Your task to perform on an android device: View the shopping cart on ebay.com. Image 0: 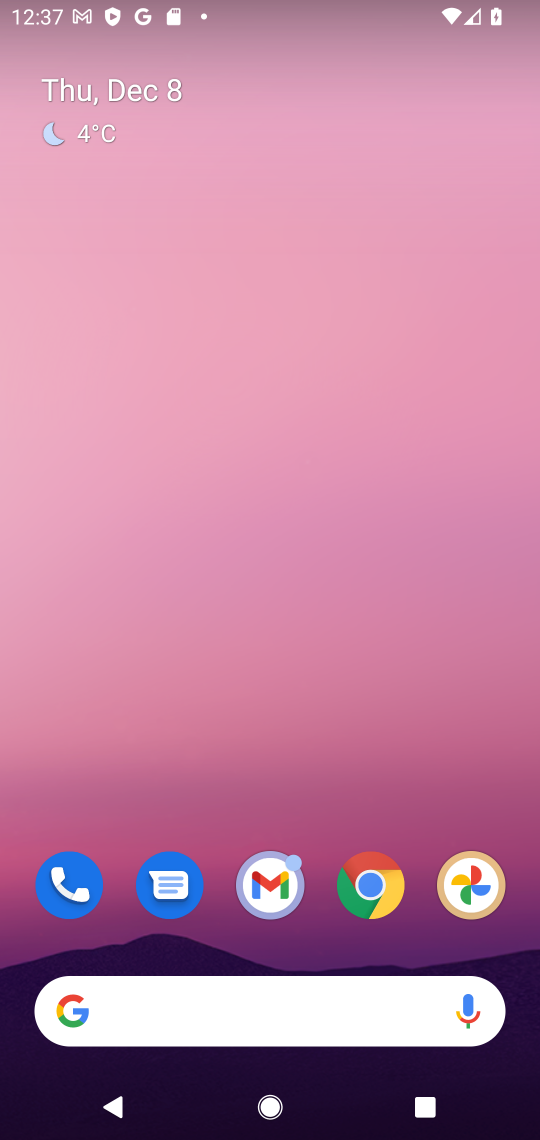
Step 0: click (376, 885)
Your task to perform on an android device: View the shopping cart on ebay.com. Image 1: 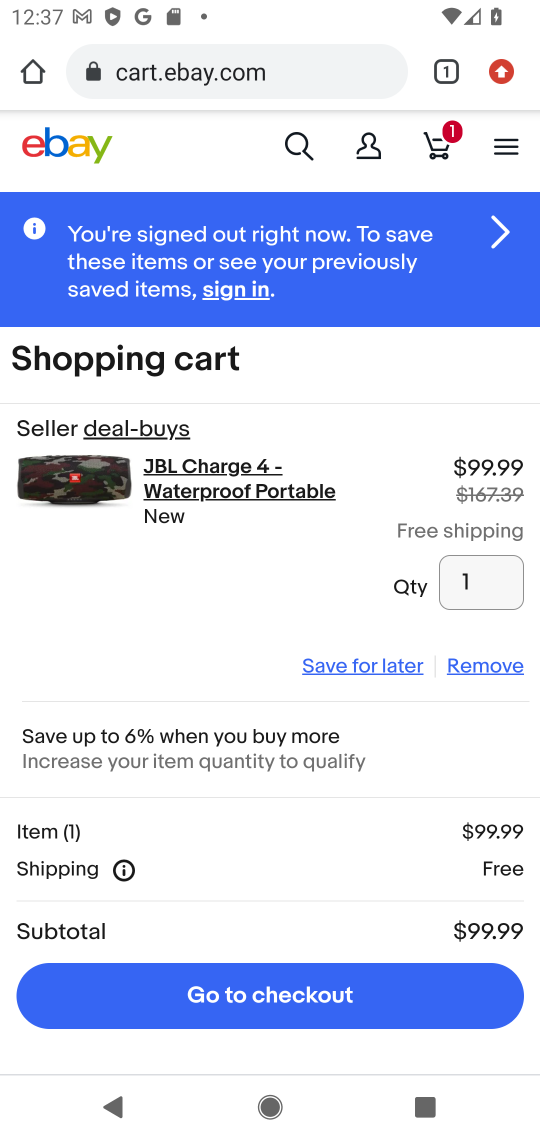
Step 1: click (437, 136)
Your task to perform on an android device: View the shopping cart on ebay.com. Image 2: 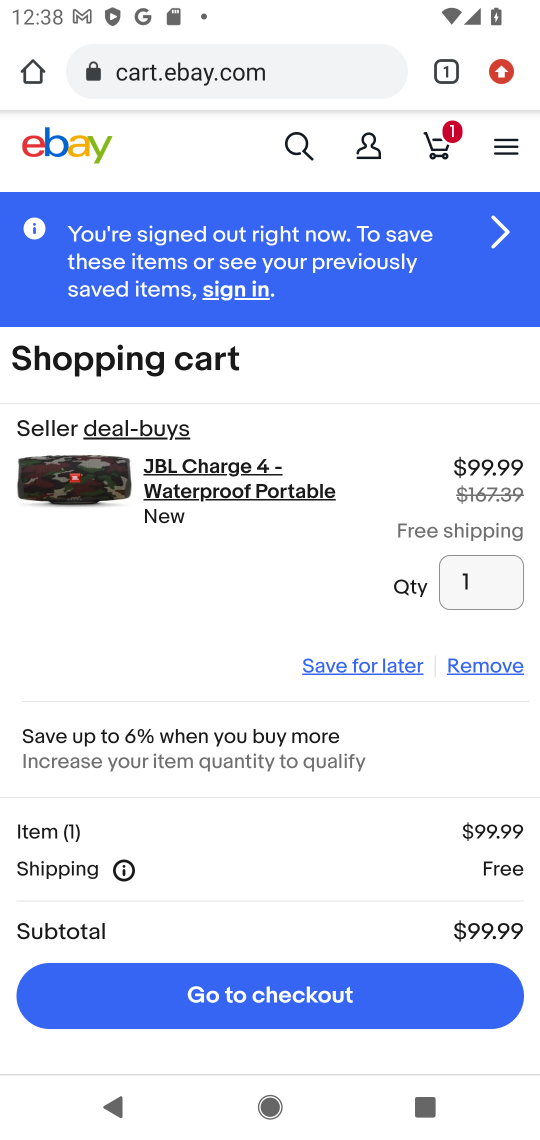
Step 2: task complete